Your task to perform on an android device: Go to Android settings Image 0: 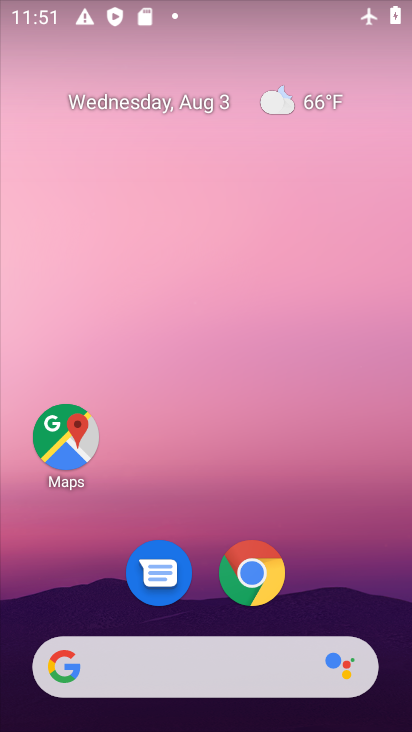
Step 0: drag from (352, 549) to (386, 114)
Your task to perform on an android device: Go to Android settings Image 1: 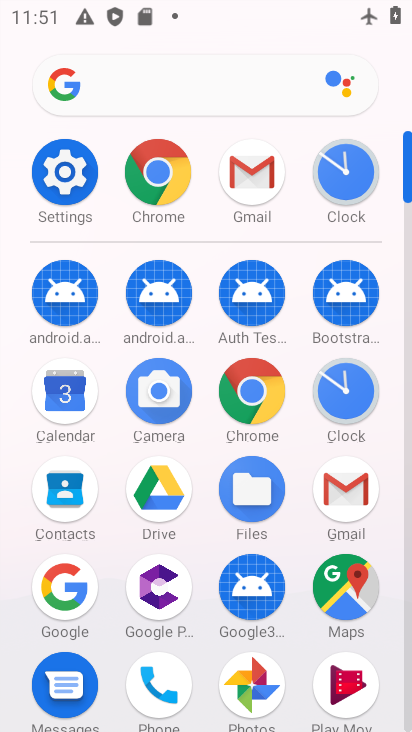
Step 1: click (66, 168)
Your task to perform on an android device: Go to Android settings Image 2: 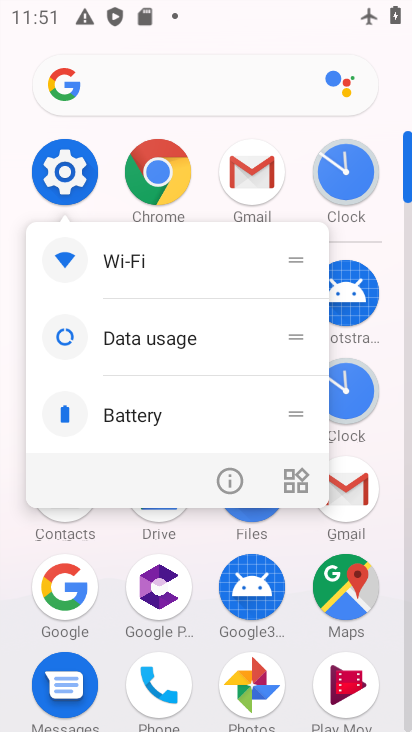
Step 2: click (66, 168)
Your task to perform on an android device: Go to Android settings Image 3: 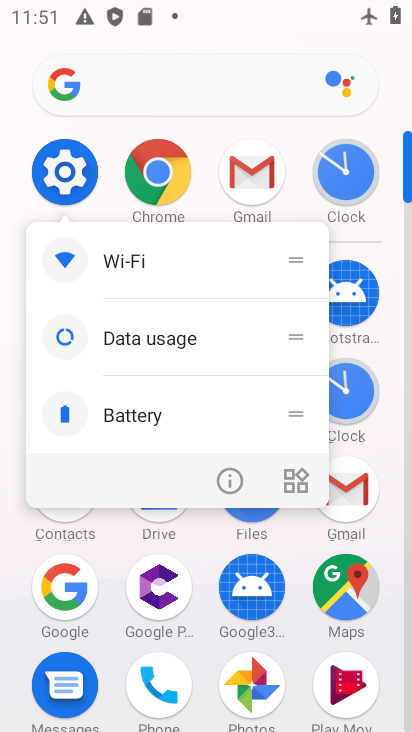
Step 3: click (386, 427)
Your task to perform on an android device: Go to Android settings Image 4: 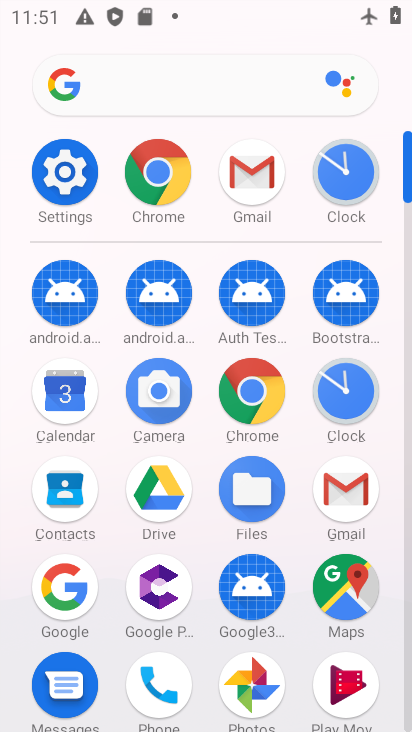
Step 4: drag from (209, 534) to (258, 246)
Your task to perform on an android device: Go to Android settings Image 5: 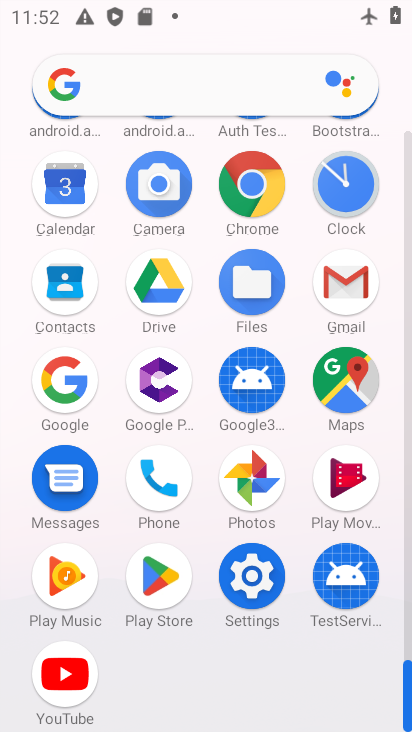
Step 5: click (270, 581)
Your task to perform on an android device: Go to Android settings Image 6: 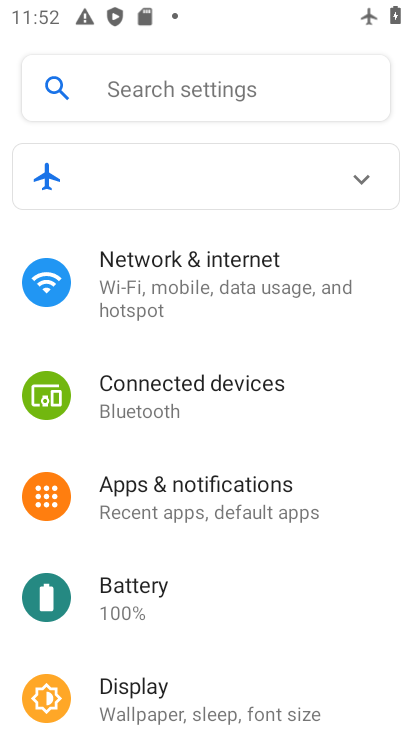
Step 6: task complete